Your task to perform on an android device: Show me the alarms in the clock app Image 0: 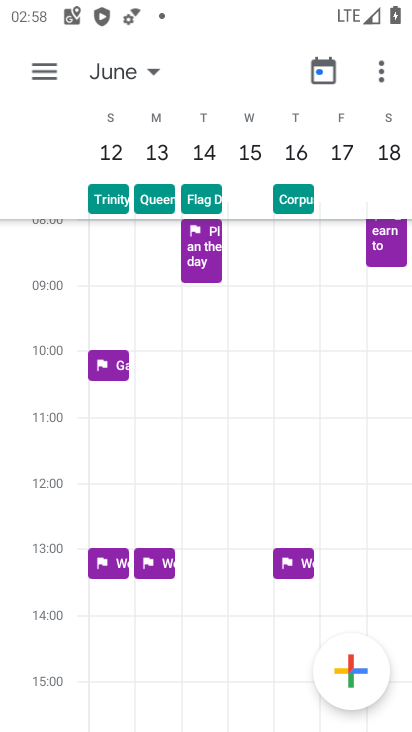
Step 0: press home button
Your task to perform on an android device: Show me the alarms in the clock app Image 1: 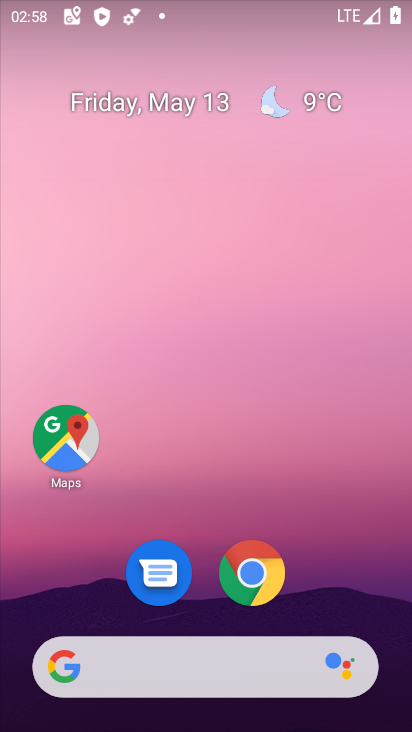
Step 1: drag from (314, 598) to (188, 192)
Your task to perform on an android device: Show me the alarms in the clock app Image 2: 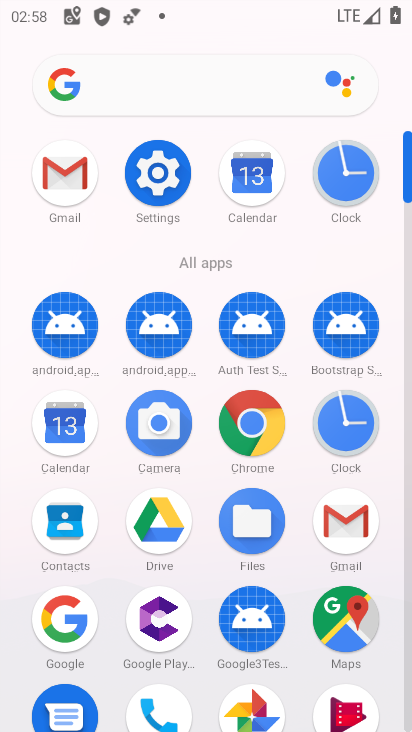
Step 2: click (343, 171)
Your task to perform on an android device: Show me the alarms in the clock app Image 3: 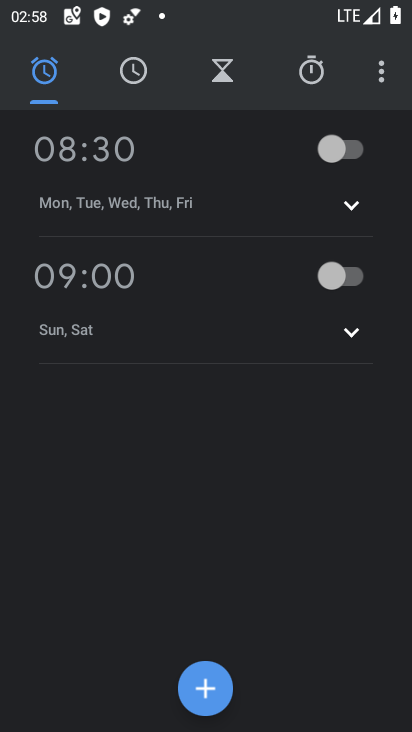
Step 3: click (206, 690)
Your task to perform on an android device: Show me the alarms in the clock app Image 4: 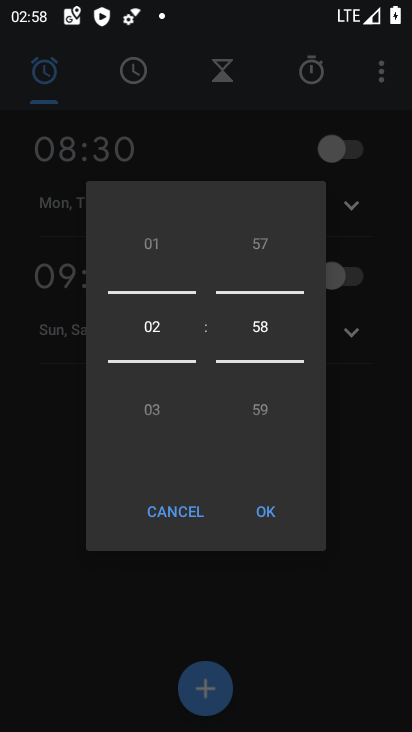
Step 4: drag from (155, 249) to (197, 416)
Your task to perform on an android device: Show me the alarms in the clock app Image 5: 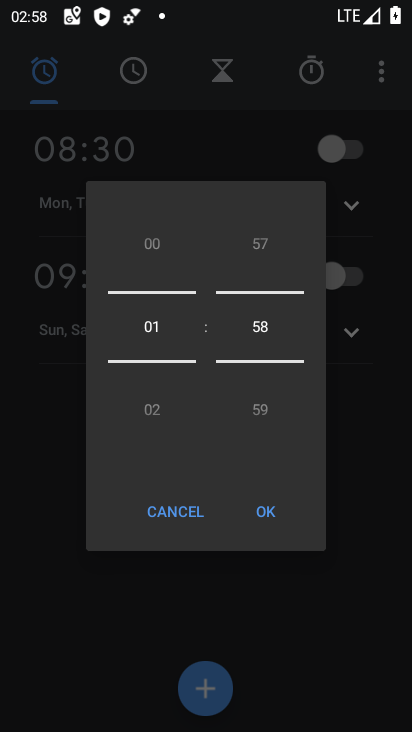
Step 5: drag from (154, 243) to (193, 440)
Your task to perform on an android device: Show me the alarms in the clock app Image 6: 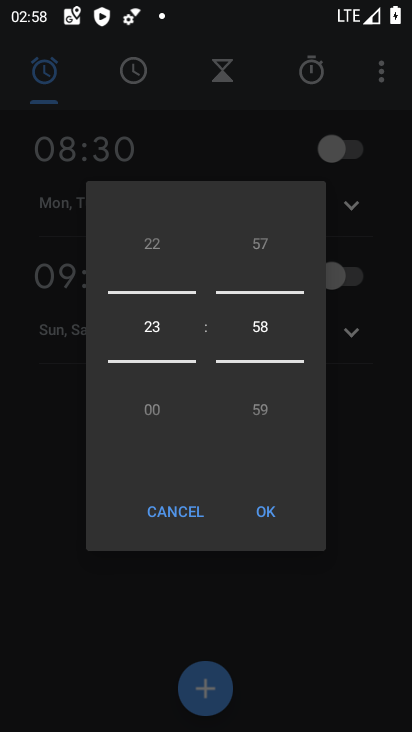
Step 6: drag from (255, 241) to (298, 455)
Your task to perform on an android device: Show me the alarms in the clock app Image 7: 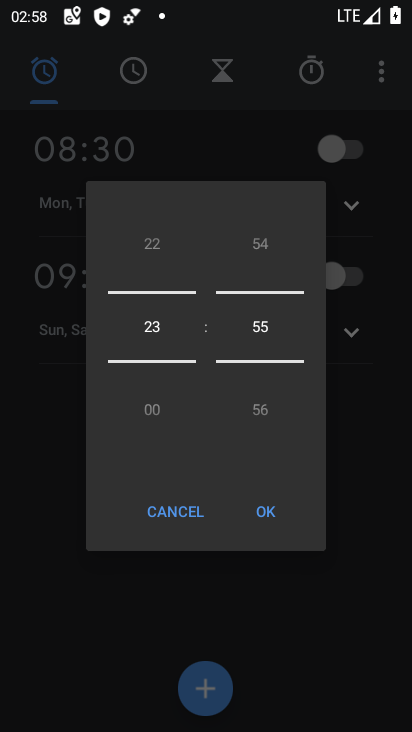
Step 7: click (277, 515)
Your task to perform on an android device: Show me the alarms in the clock app Image 8: 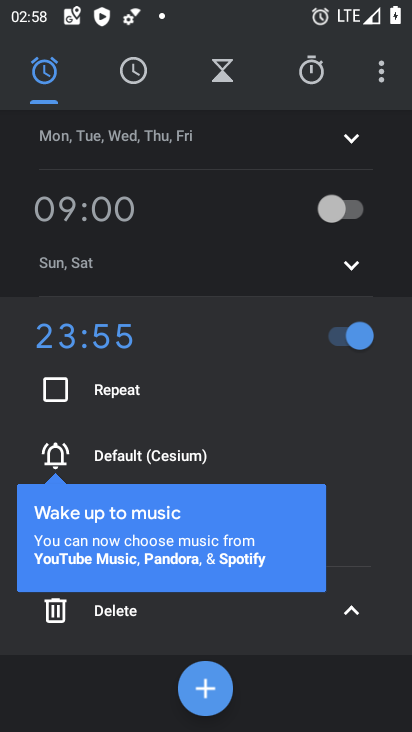
Step 8: click (349, 611)
Your task to perform on an android device: Show me the alarms in the clock app Image 9: 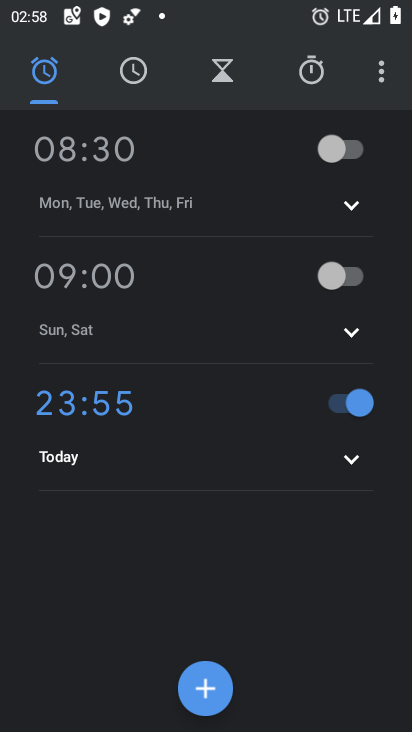
Step 9: task complete